Your task to perform on an android device: Open Chrome and go to settings Image 0: 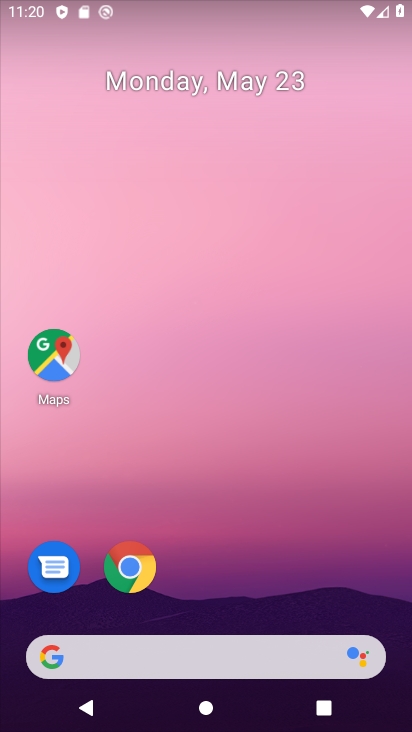
Step 0: drag from (309, 471) to (311, 172)
Your task to perform on an android device: Open Chrome and go to settings Image 1: 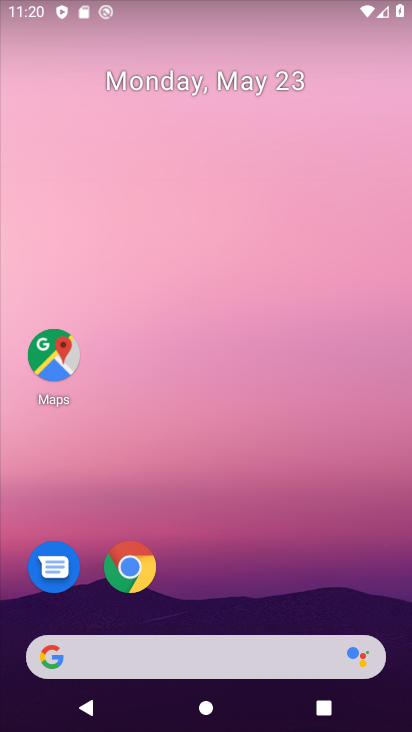
Step 1: click (127, 583)
Your task to perform on an android device: Open Chrome and go to settings Image 2: 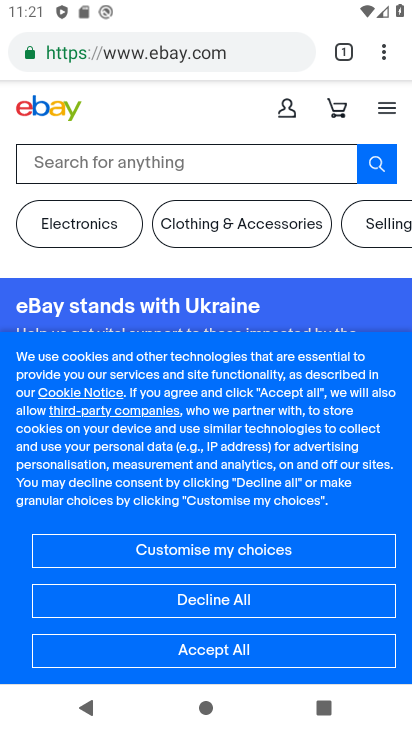
Step 2: task complete